Your task to perform on an android device: Open Reddit.com Image 0: 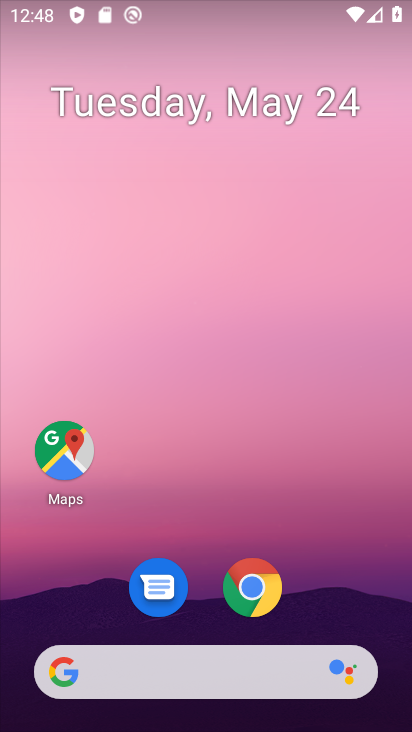
Step 0: click (238, 664)
Your task to perform on an android device: Open Reddit.com Image 1: 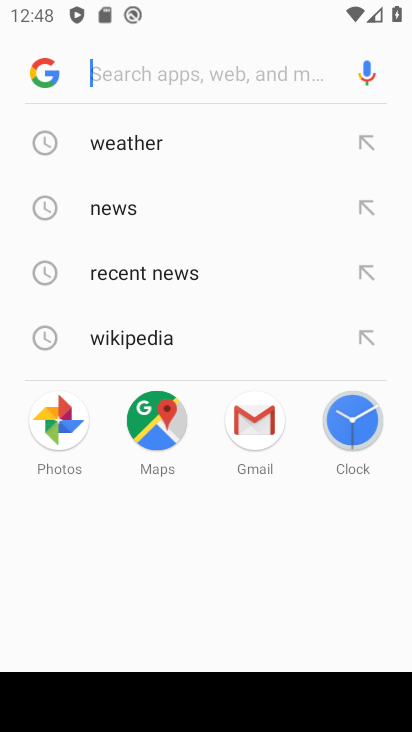
Step 1: type "reddit"
Your task to perform on an android device: Open Reddit.com Image 2: 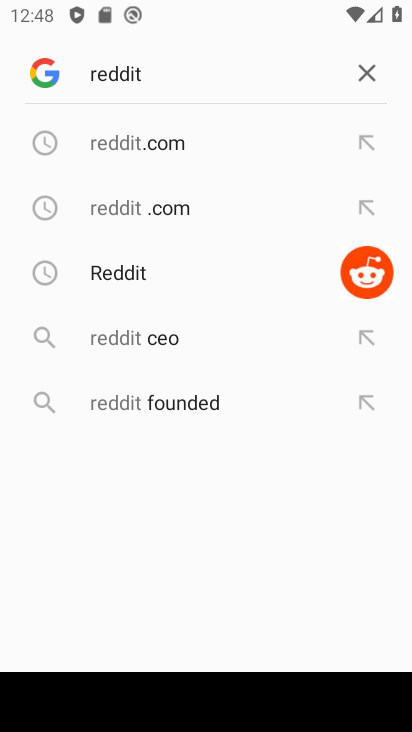
Step 2: click (175, 143)
Your task to perform on an android device: Open Reddit.com Image 3: 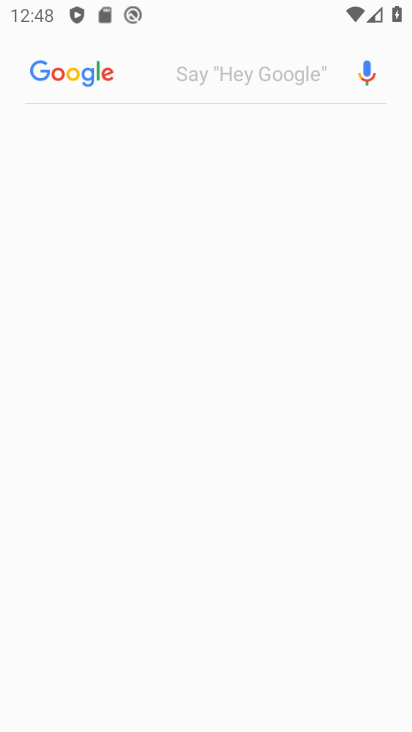
Step 3: task complete